Your task to perform on an android device: Show me recent news Image 0: 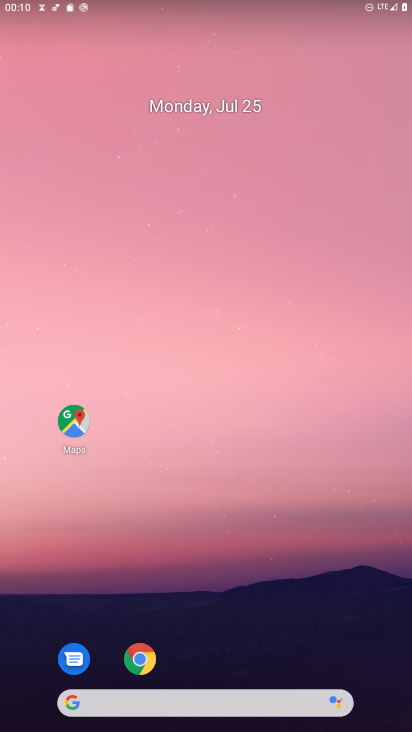
Step 0: drag from (185, 640) to (186, 170)
Your task to perform on an android device: Show me recent news Image 1: 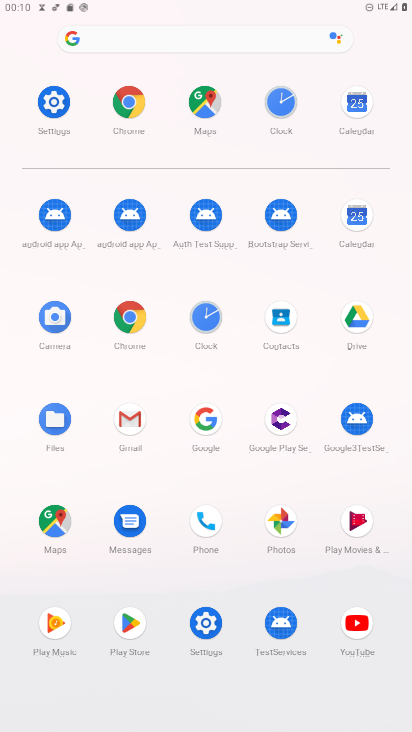
Step 1: click (117, 96)
Your task to perform on an android device: Show me recent news Image 2: 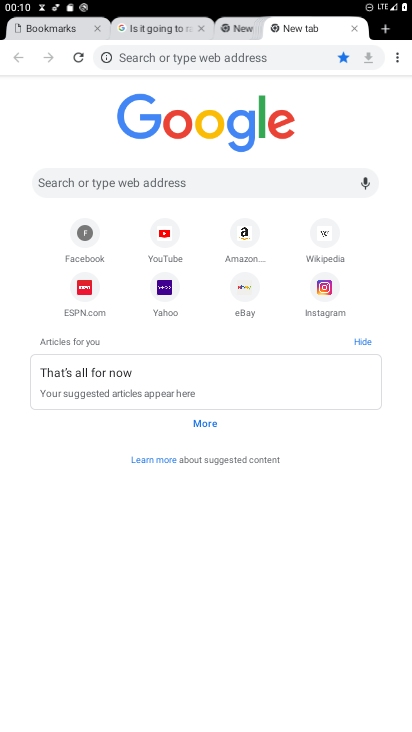
Step 2: click (130, 183)
Your task to perform on an android device: Show me recent news Image 3: 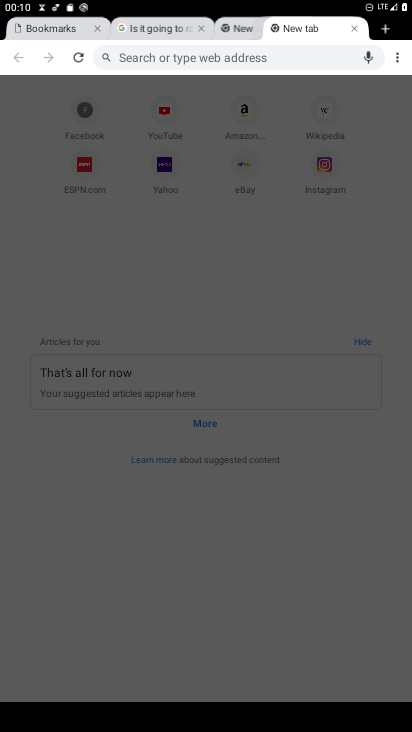
Step 3: type "Show me recent news "
Your task to perform on an android device: Show me recent news Image 4: 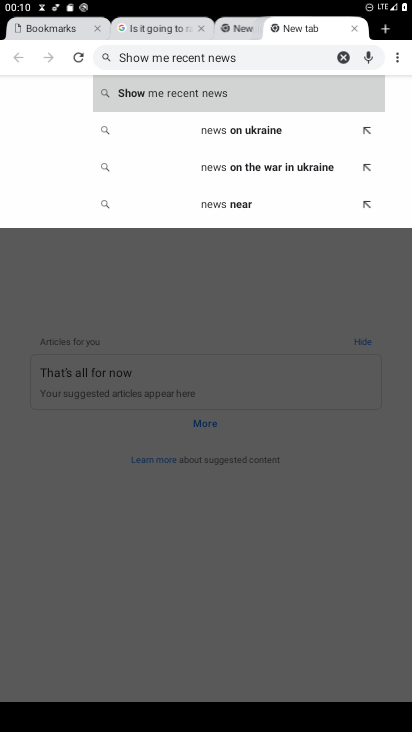
Step 4: click (216, 80)
Your task to perform on an android device: Show me recent news Image 5: 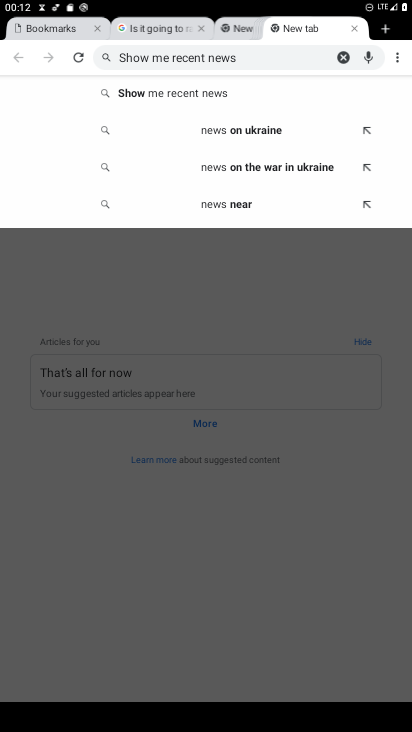
Step 5: click (214, 82)
Your task to perform on an android device: Show me recent news Image 6: 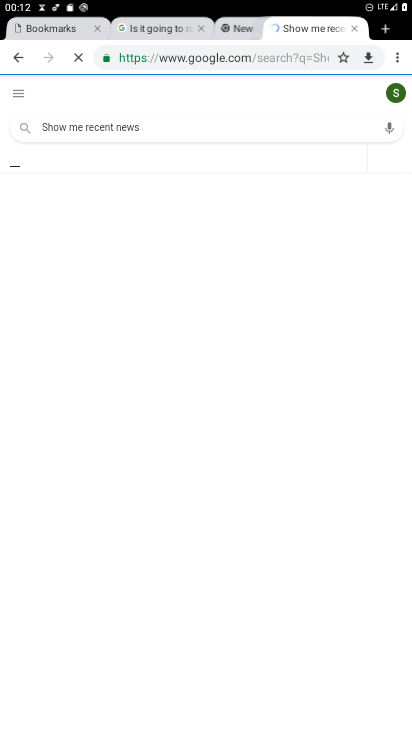
Step 6: task complete